Your task to perform on an android device: Open calendar and show me the fourth week of next month Image 0: 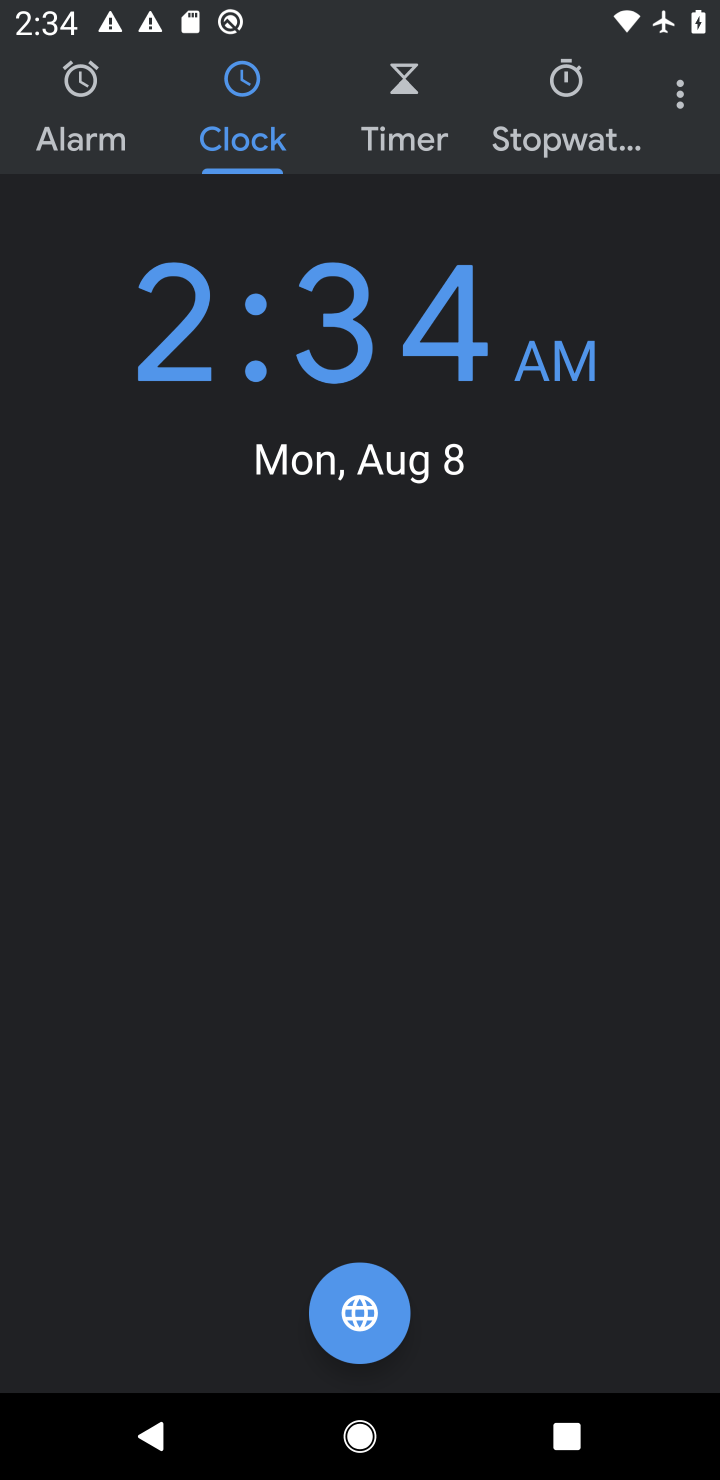
Step 0: press home button
Your task to perform on an android device: Open calendar and show me the fourth week of next month Image 1: 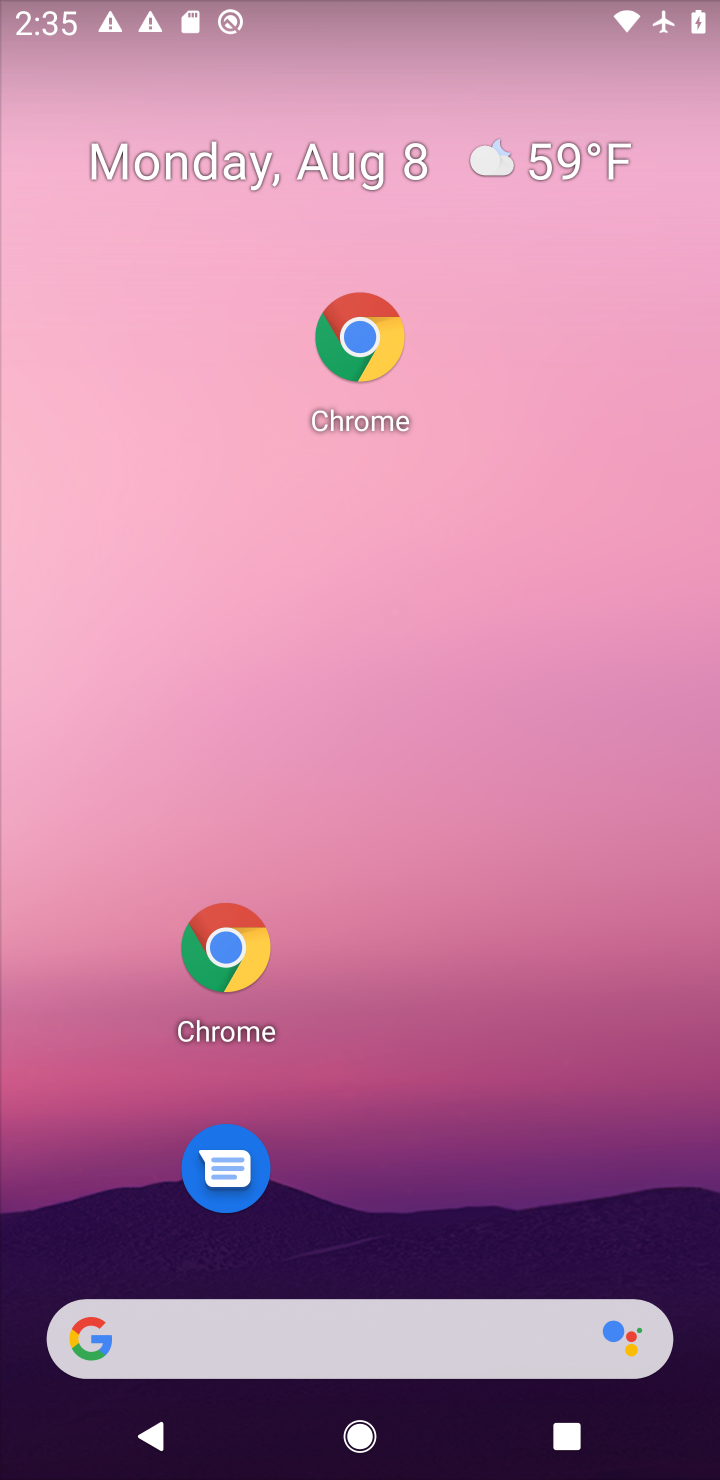
Step 1: drag from (475, 964) to (495, 107)
Your task to perform on an android device: Open calendar and show me the fourth week of next month Image 2: 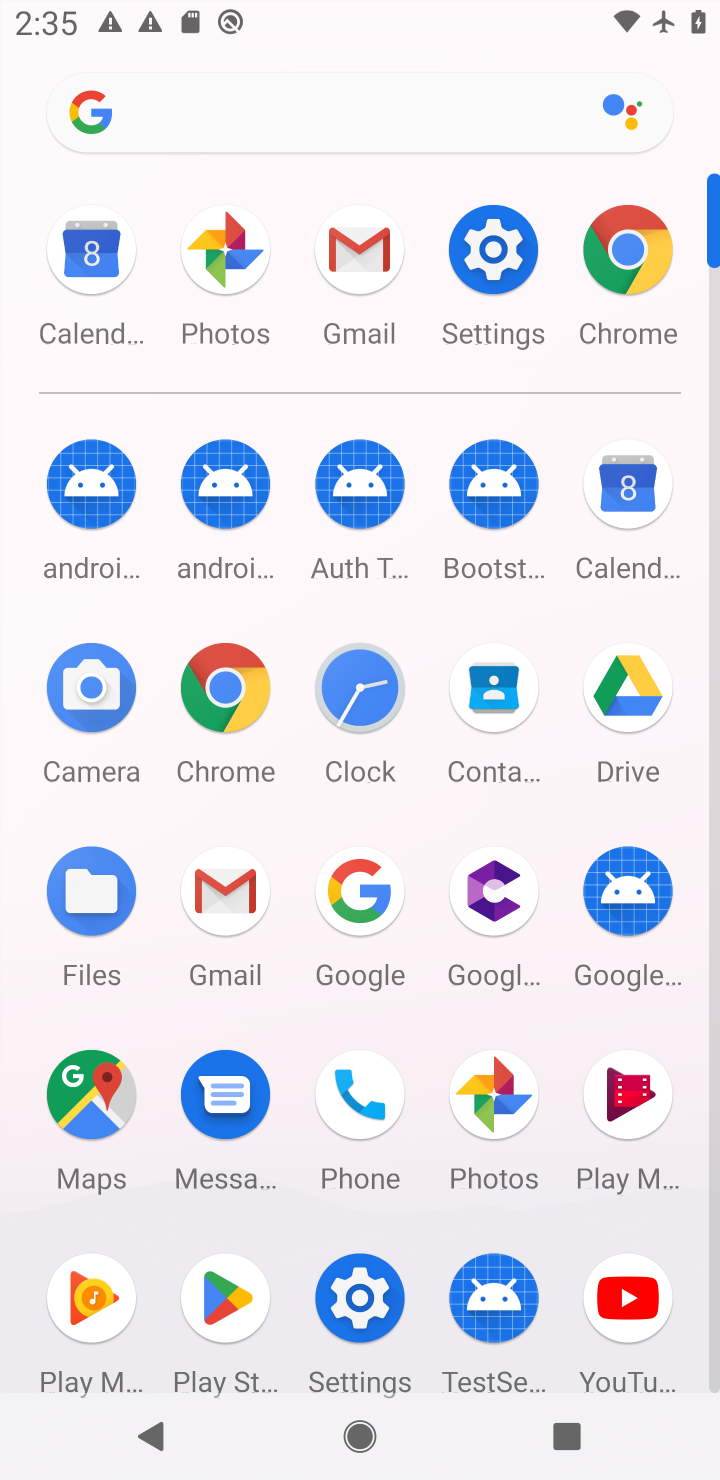
Step 2: click (610, 466)
Your task to perform on an android device: Open calendar and show me the fourth week of next month Image 3: 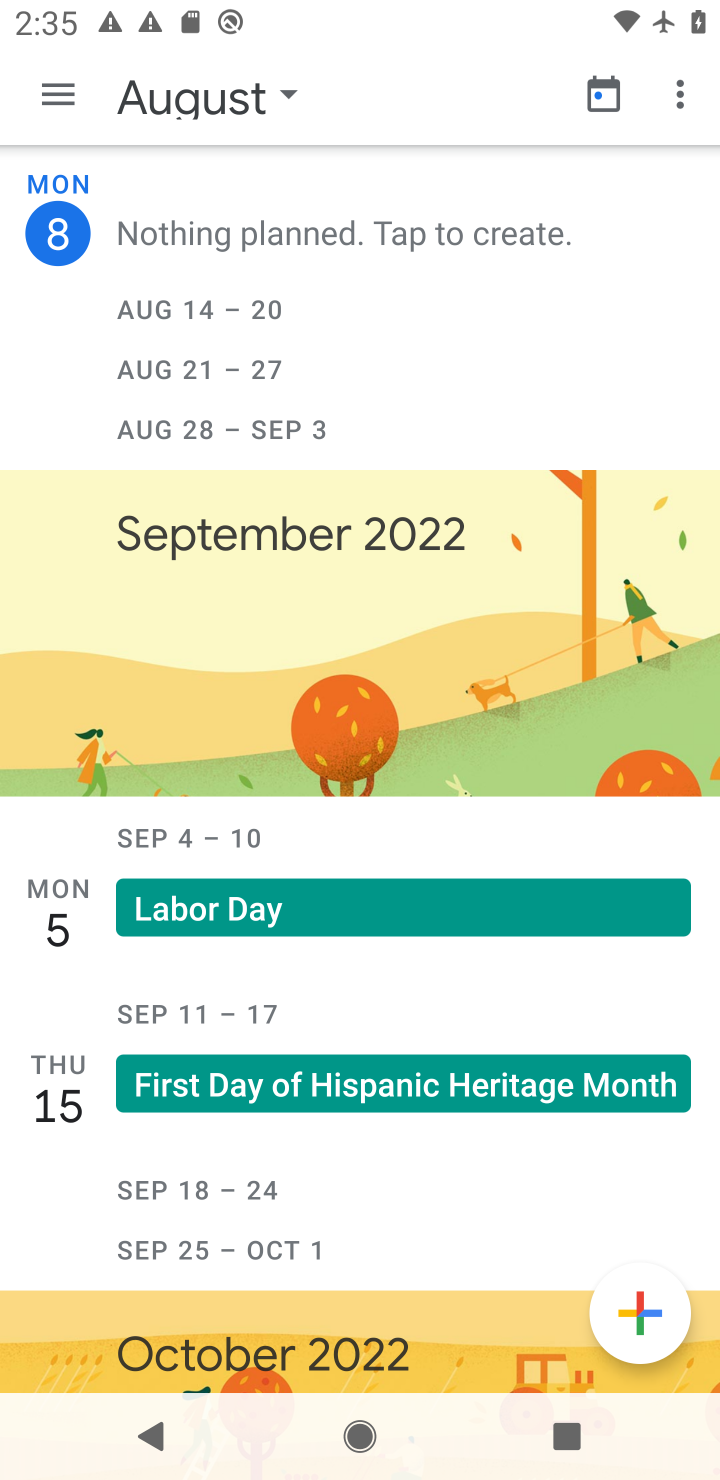
Step 3: task complete